Your task to perform on an android device: empty trash in google photos Image 0: 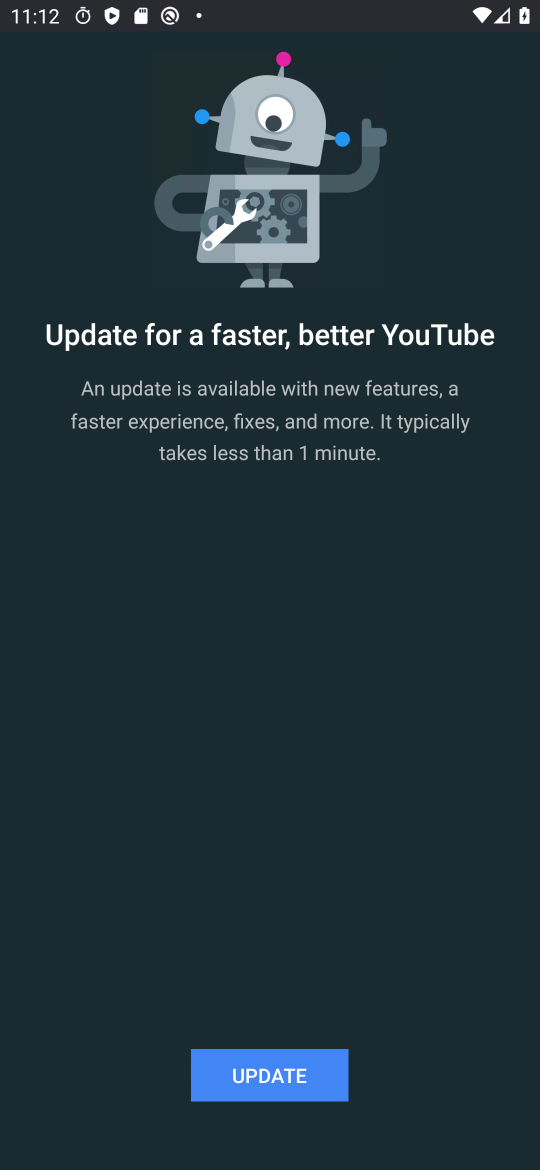
Step 0: press back button
Your task to perform on an android device: empty trash in google photos Image 1: 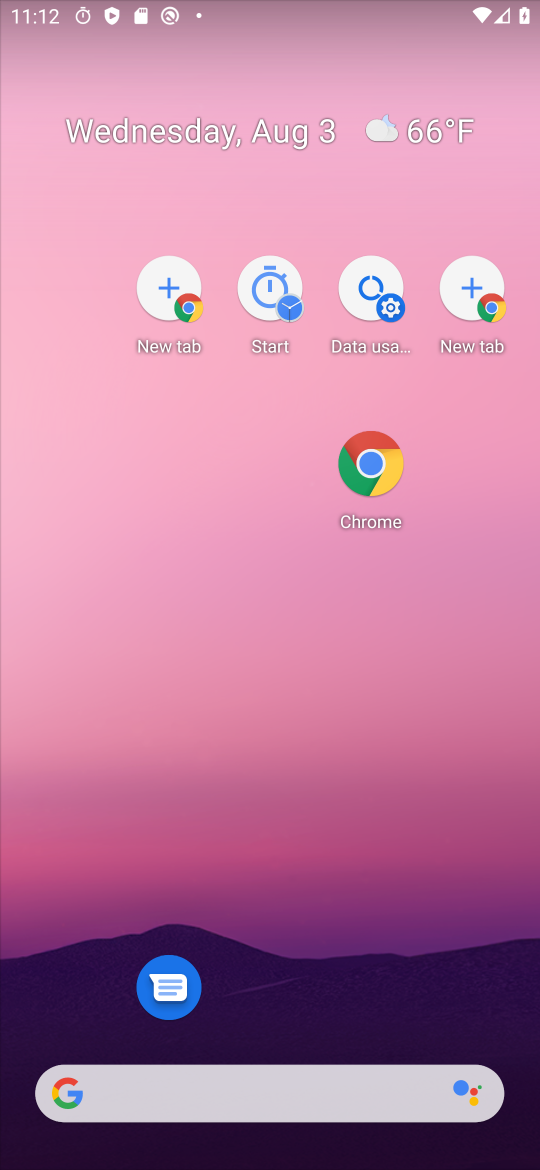
Step 1: drag from (267, 1010) to (454, 270)
Your task to perform on an android device: empty trash in google photos Image 2: 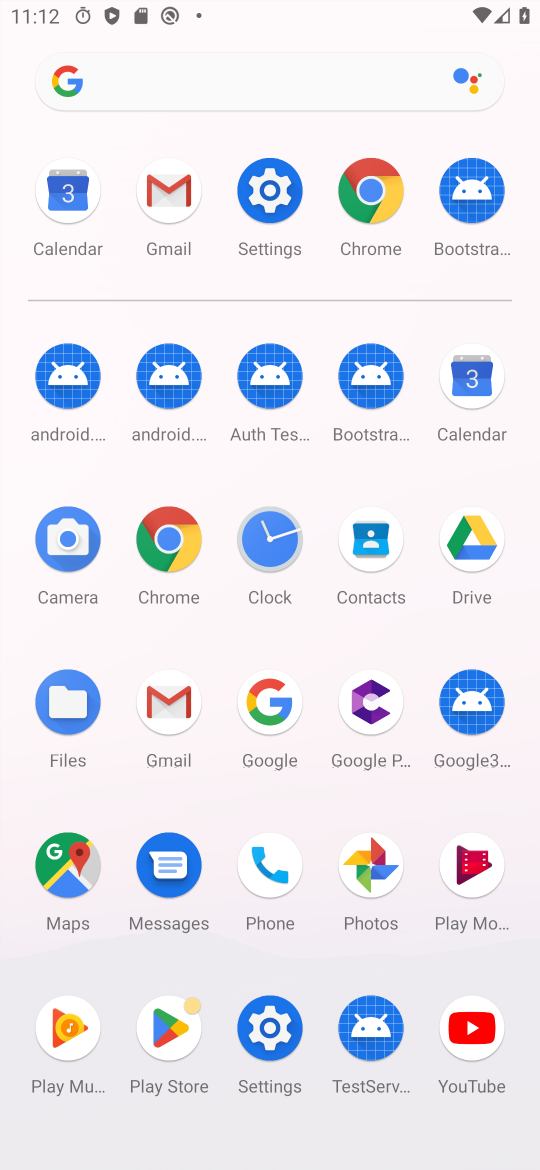
Step 2: click (378, 868)
Your task to perform on an android device: empty trash in google photos Image 3: 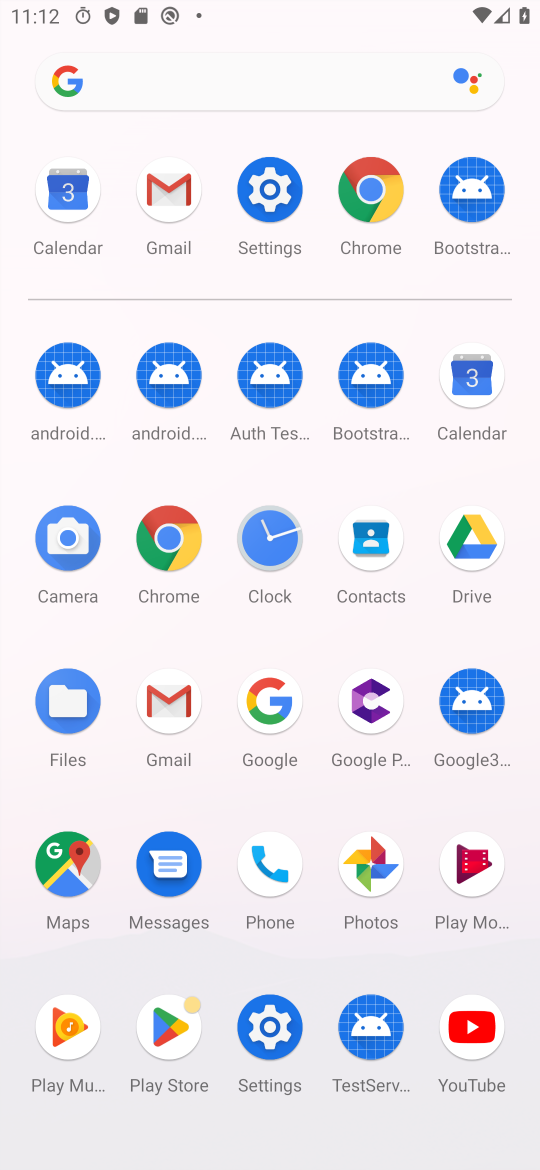
Step 3: click (350, 849)
Your task to perform on an android device: empty trash in google photos Image 4: 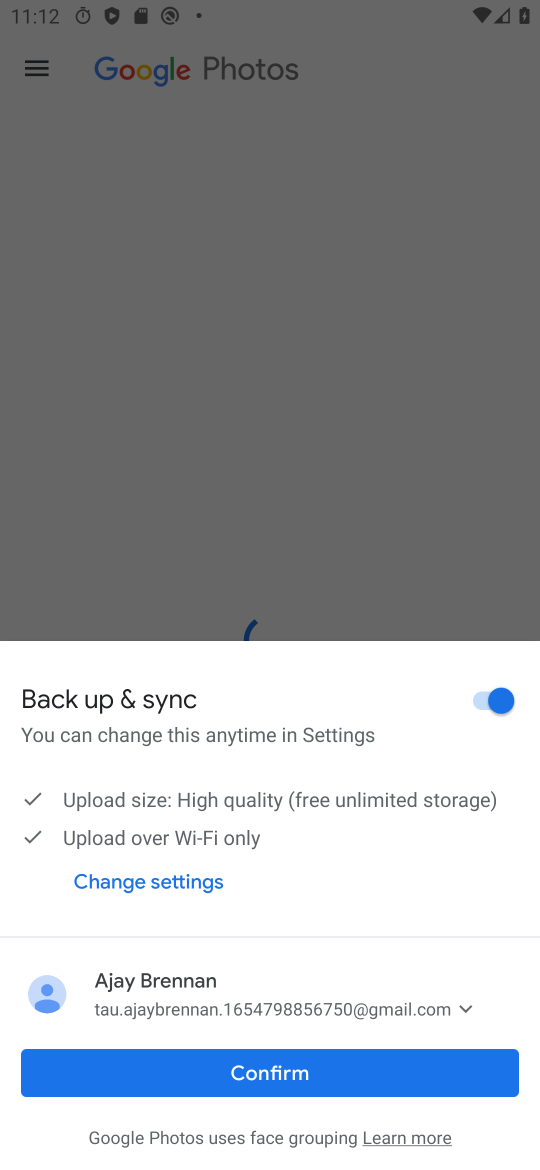
Step 4: click (51, 45)
Your task to perform on an android device: empty trash in google photos Image 5: 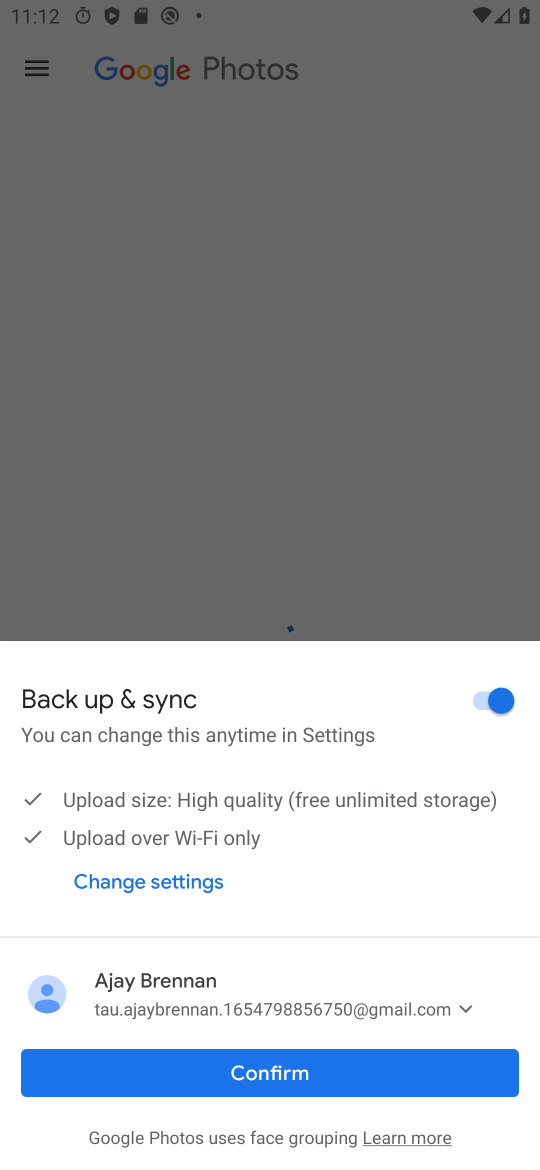
Step 5: click (51, 45)
Your task to perform on an android device: empty trash in google photos Image 6: 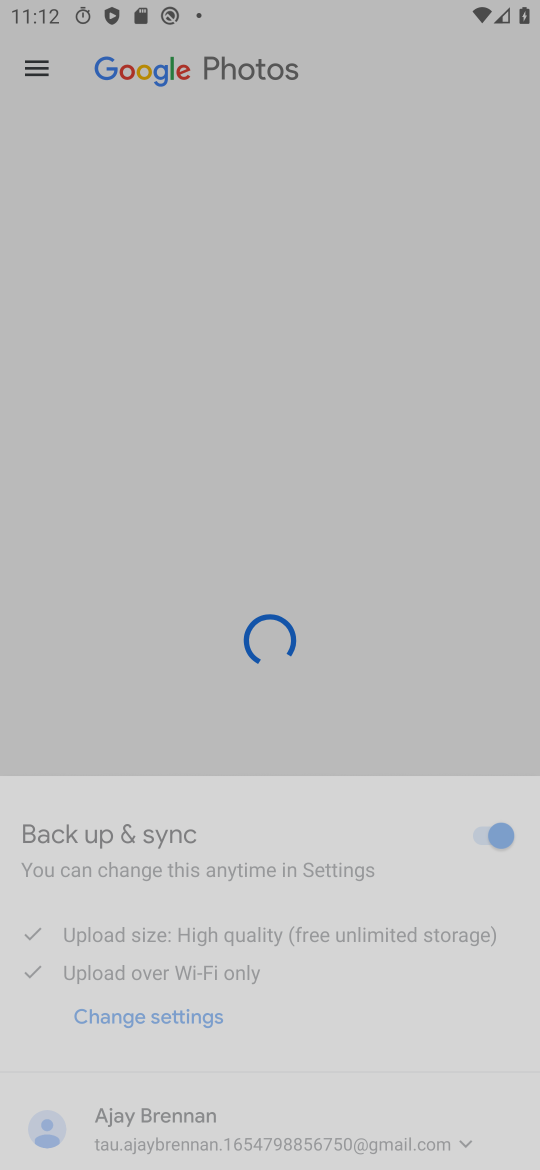
Step 6: click (51, 47)
Your task to perform on an android device: empty trash in google photos Image 7: 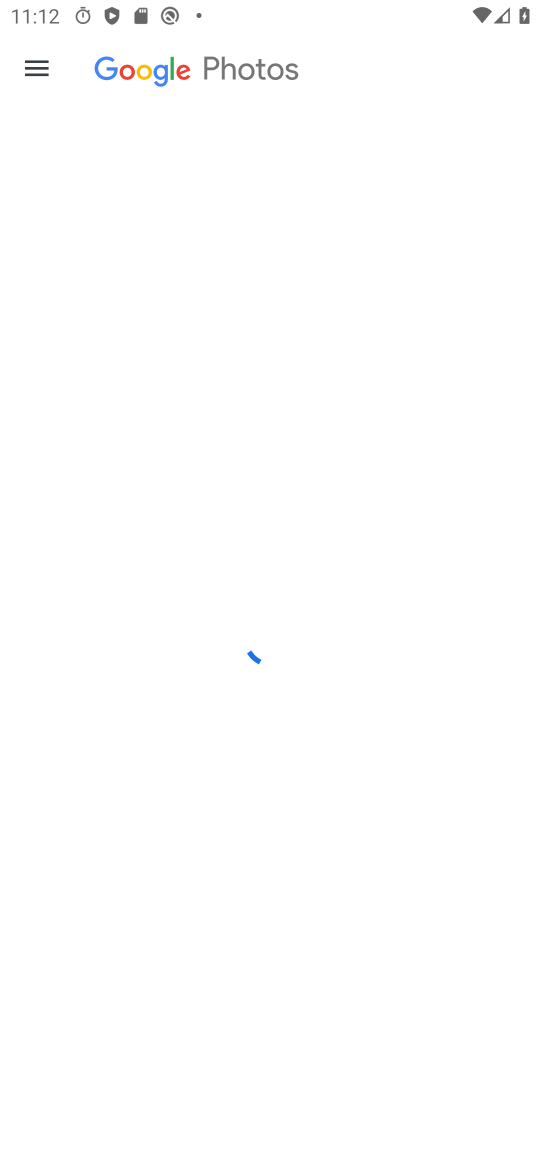
Step 7: click (62, 52)
Your task to perform on an android device: empty trash in google photos Image 8: 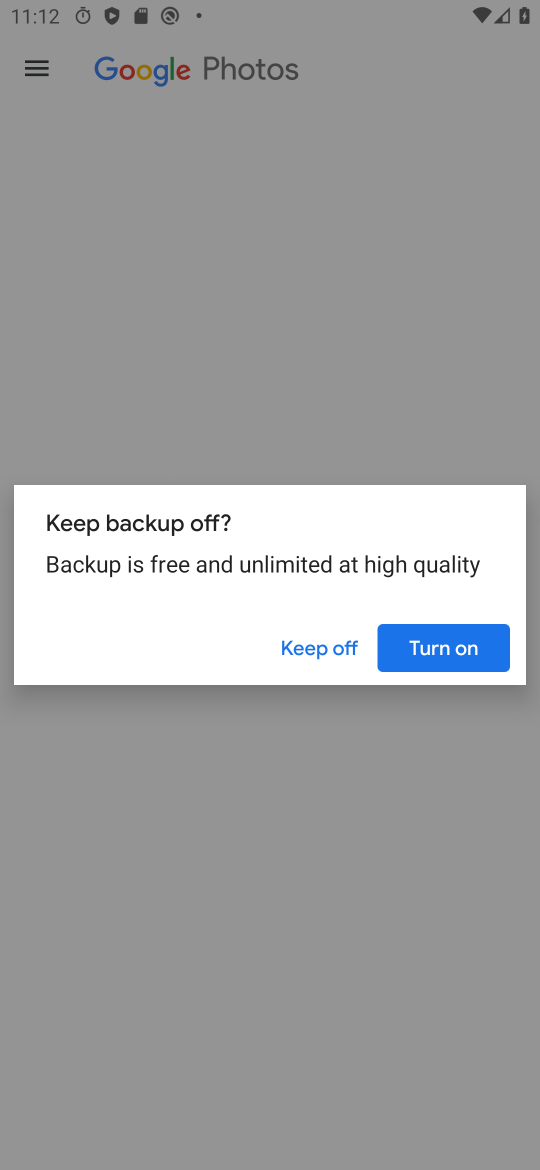
Step 8: click (48, 68)
Your task to perform on an android device: empty trash in google photos Image 9: 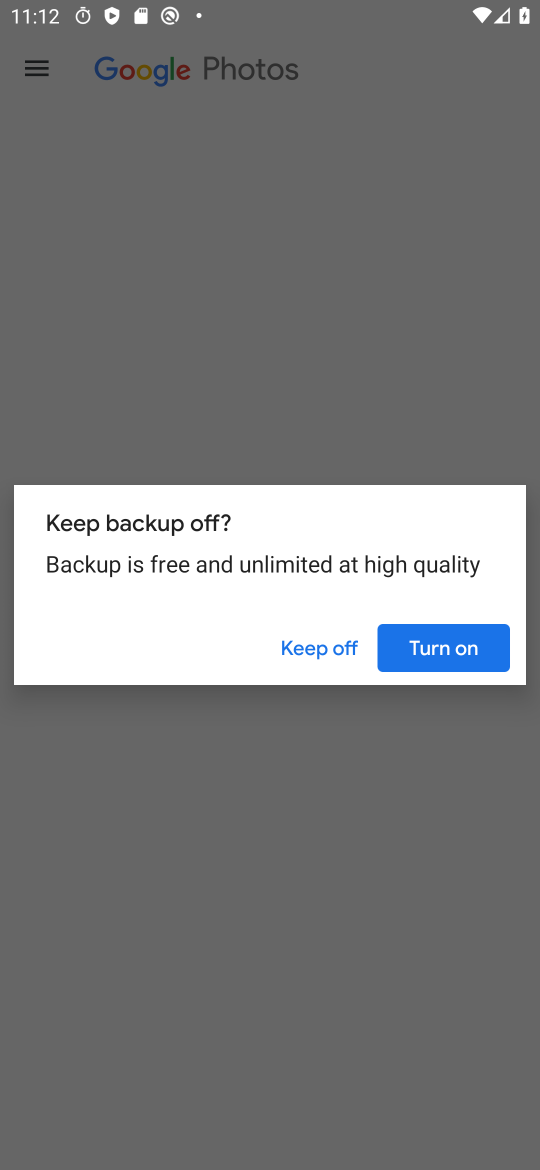
Step 9: click (38, 65)
Your task to perform on an android device: empty trash in google photos Image 10: 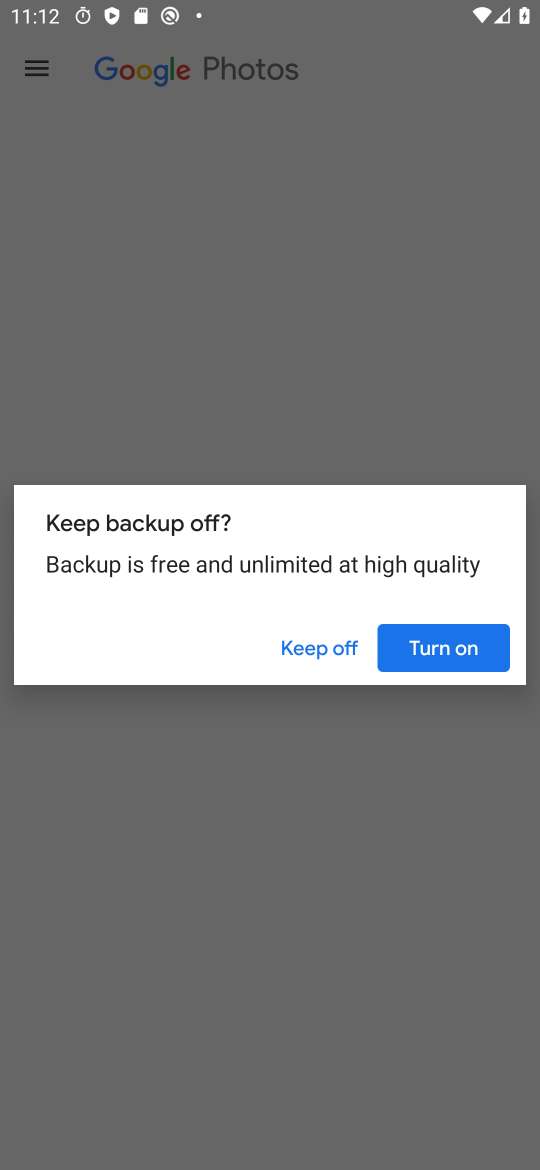
Step 10: click (38, 65)
Your task to perform on an android device: empty trash in google photos Image 11: 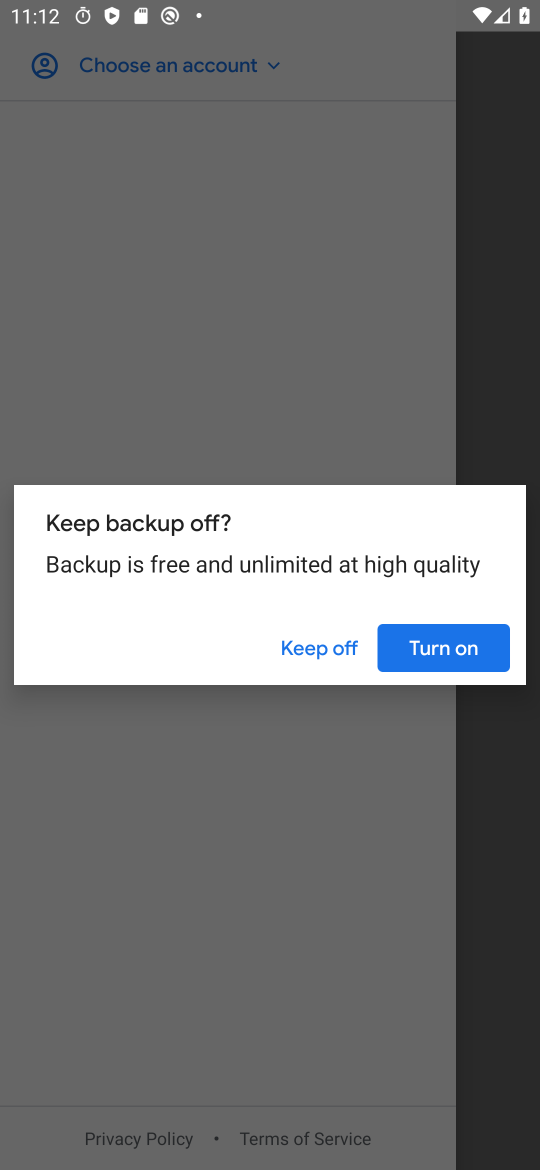
Step 11: click (315, 656)
Your task to perform on an android device: empty trash in google photos Image 12: 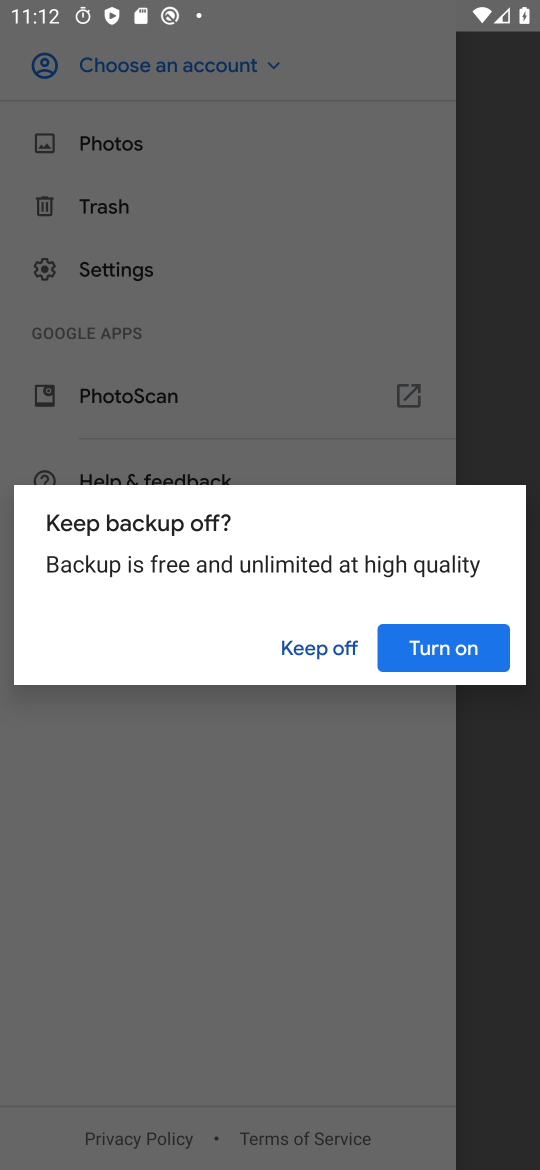
Step 12: click (137, 255)
Your task to perform on an android device: empty trash in google photos Image 13: 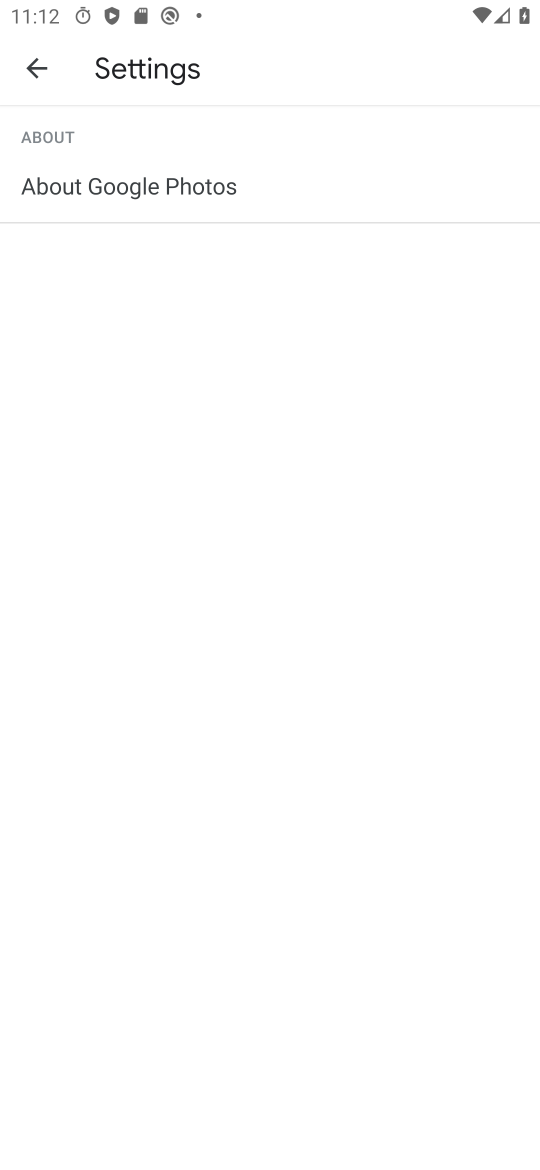
Step 13: click (30, 62)
Your task to perform on an android device: empty trash in google photos Image 14: 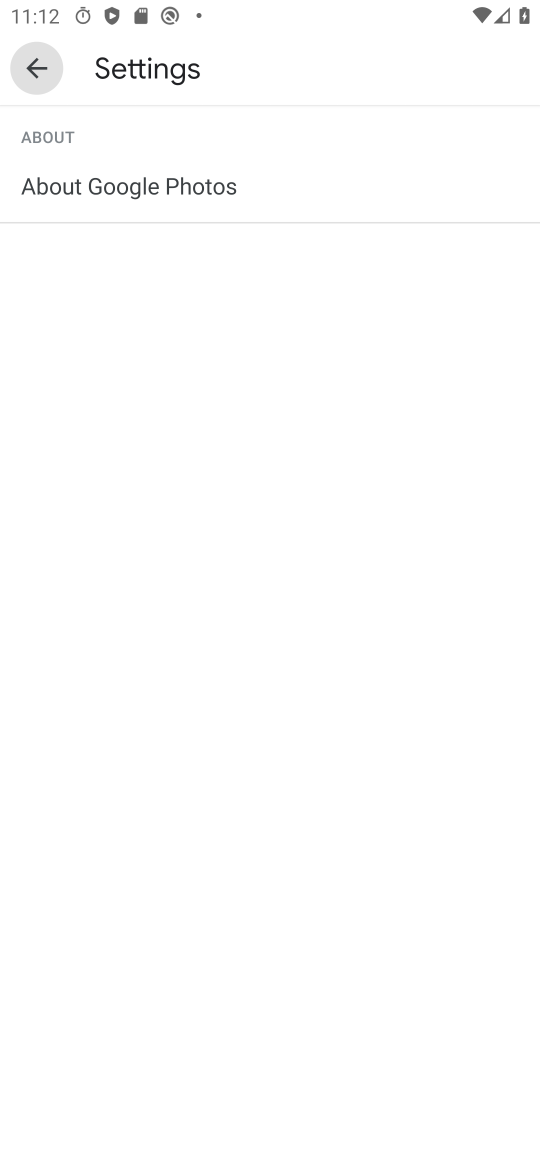
Step 14: click (32, 60)
Your task to perform on an android device: empty trash in google photos Image 15: 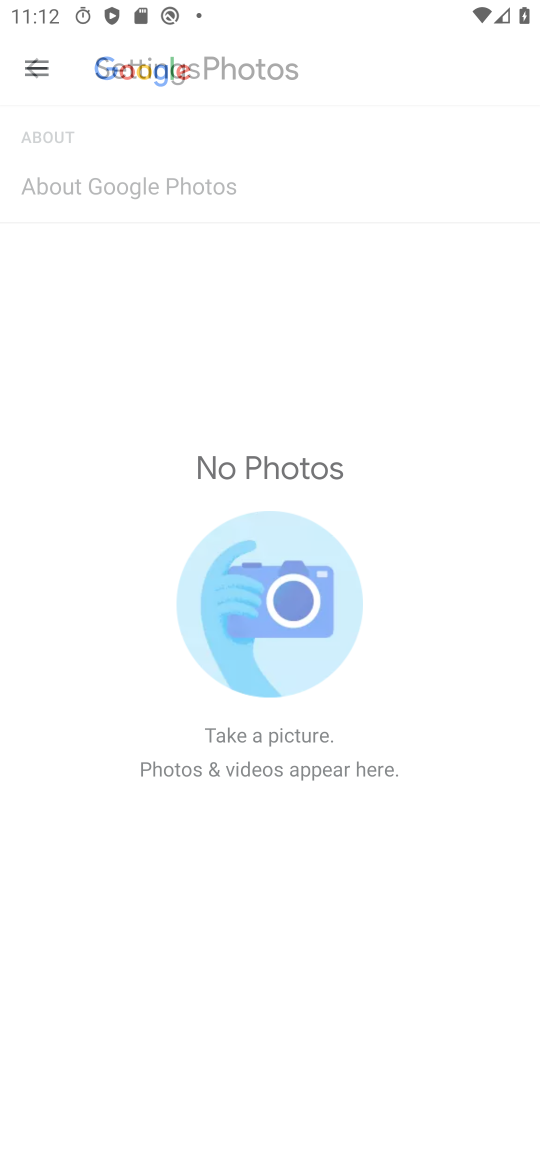
Step 15: click (39, 60)
Your task to perform on an android device: empty trash in google photos Image 16: 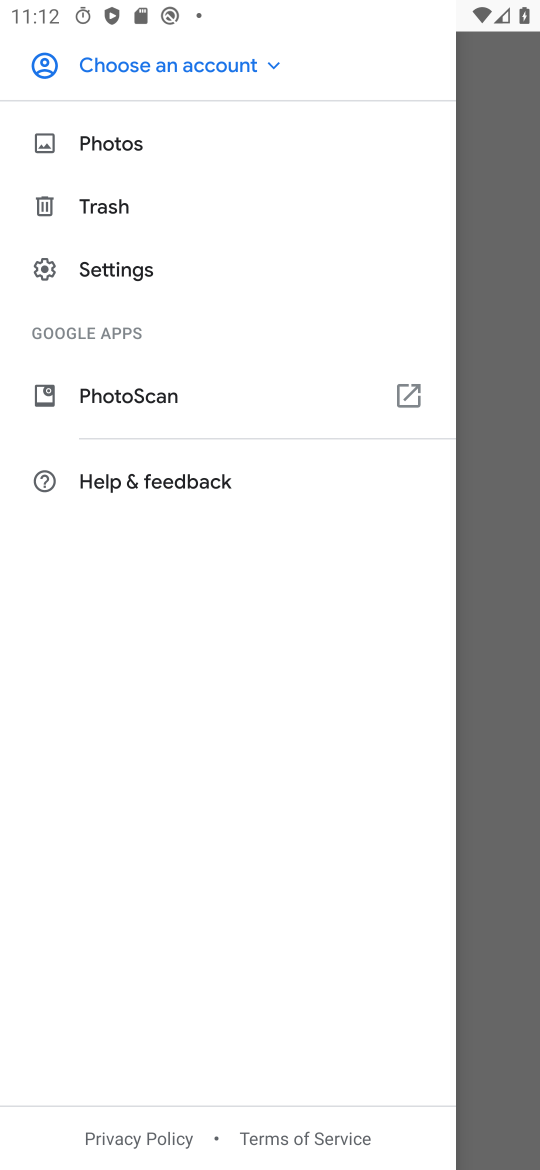
Step 16: drag from (44, 72) to (89, 202)
Your task to perform on an android device: empty trash in google photos Image 17: 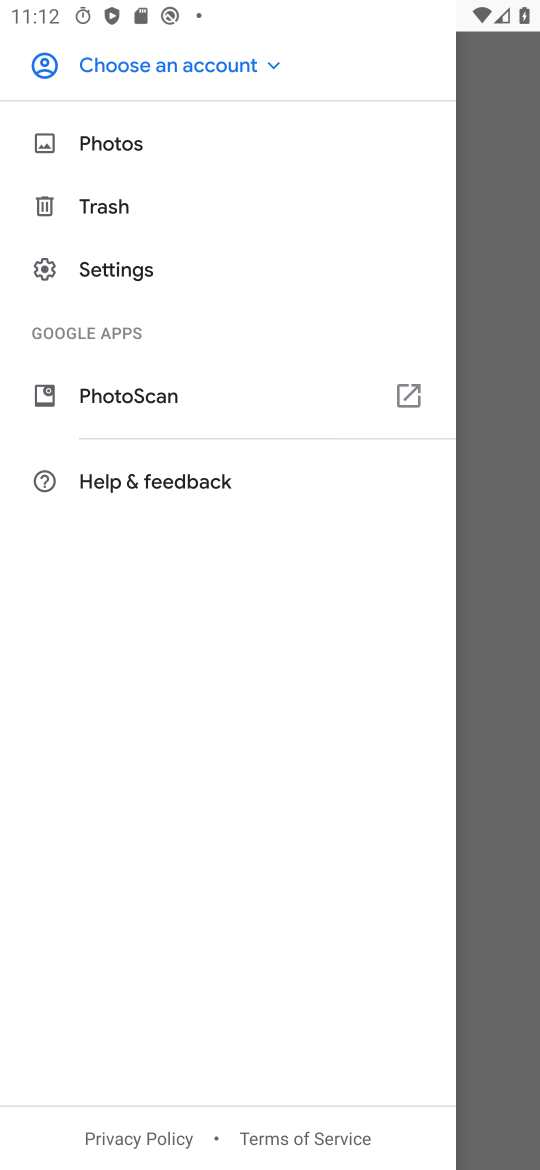
Step 17: click (89, 202)
Your task to perform on an android device: empty trash in google photos Image 18: 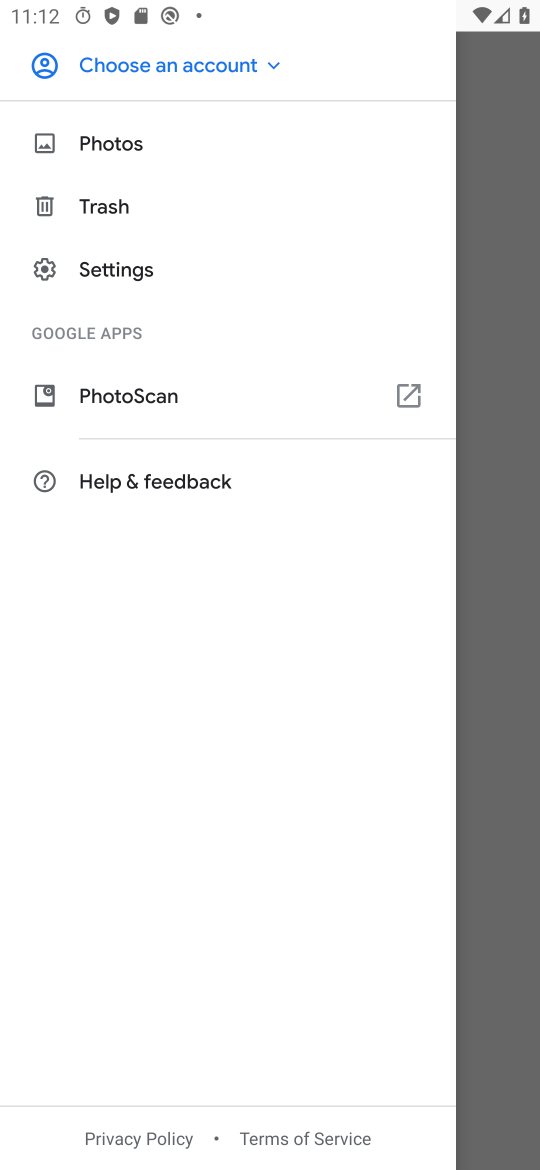
Step 18: click (92, 186)
Your task to perform on an android device: empty trash in google photos Image 19: 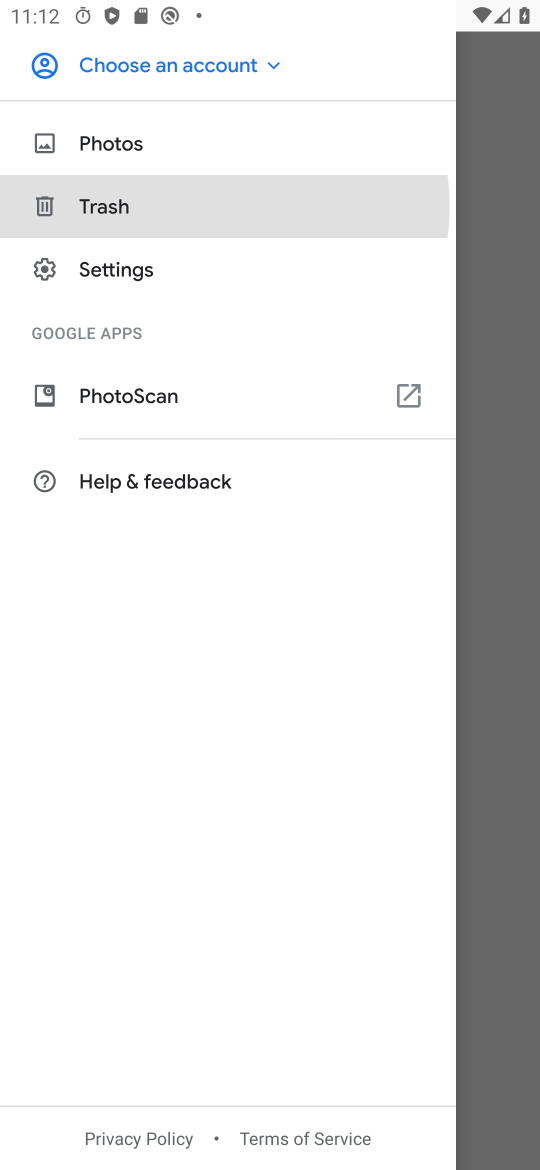
Step 19: click (86, 188)
Your task to perform on an android device: empty trash in google photos Image 20: 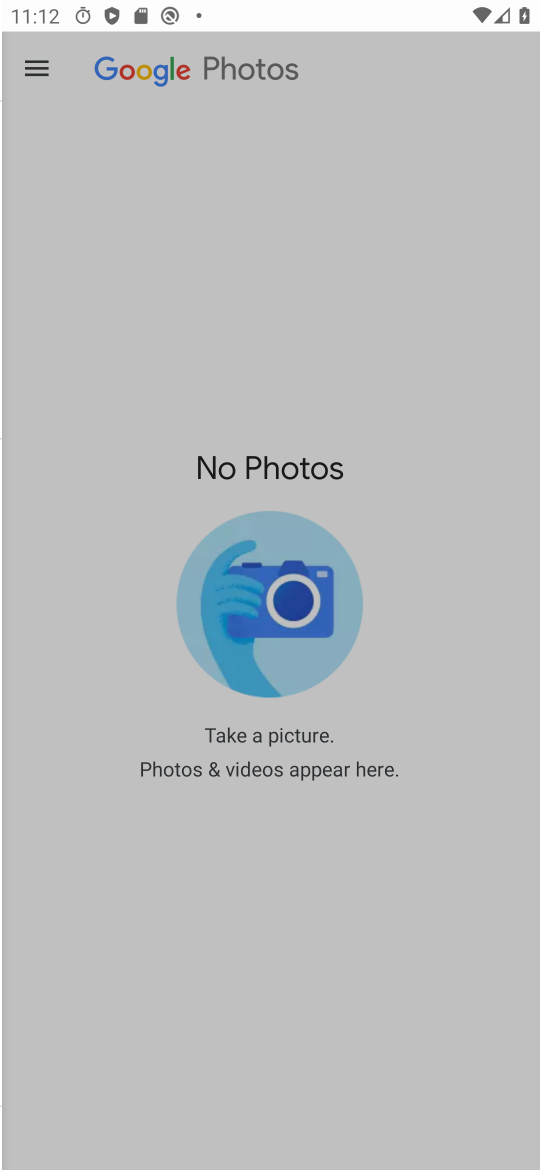
Step 20: click (94, 204)
Your task to perform on an android device: empty trash in google photos Image 21: 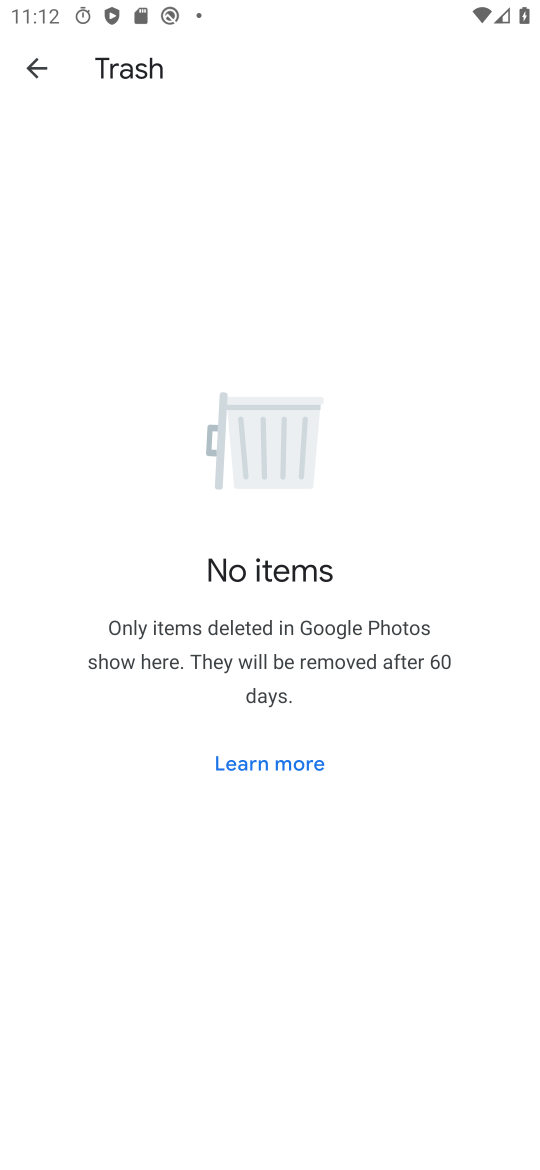
Step 21: task complete